Your task to perform on an android device: uninstall "Flipkart Online Shopping App" Image 0: 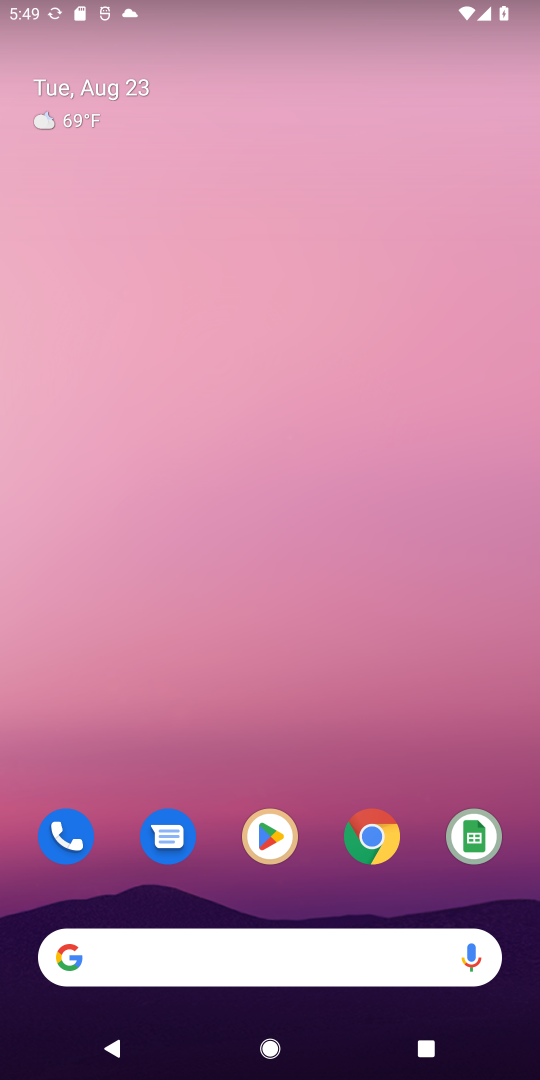
Step 0: click (269, 832)
Your task to perform on an android device: uninstall "Flipkart Online Shopping App" Image 1: 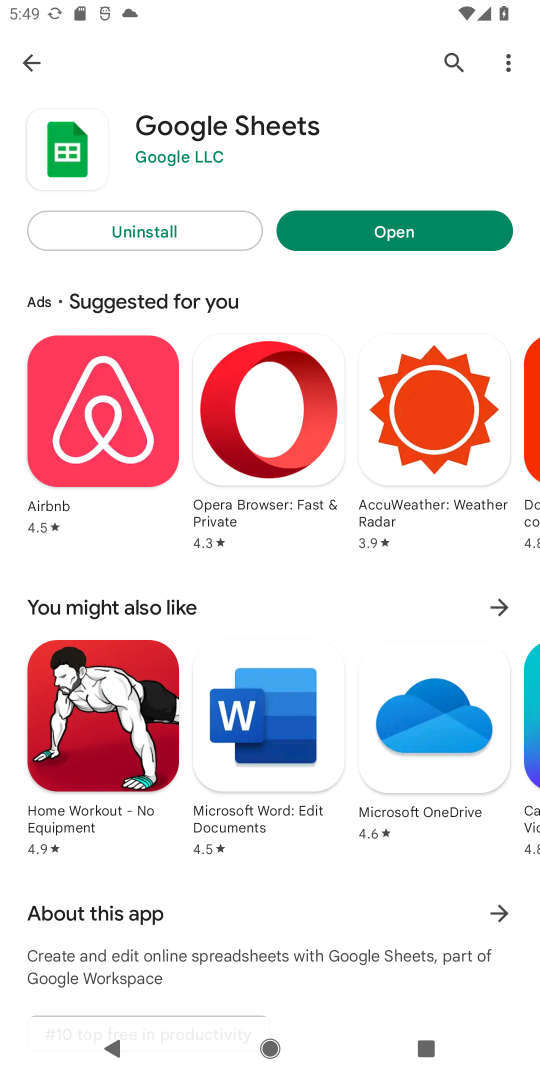
Step 1: click (454, 60)
Your task to perform on an android device: uninstall "Flipkart Online Shopping App" Image 2: 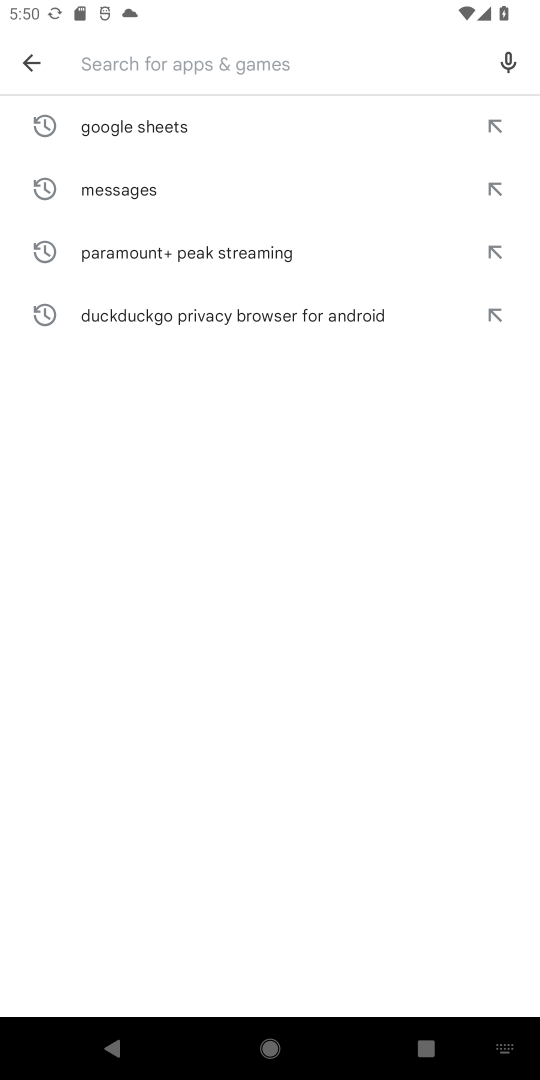
Step 2: type "Flipkart Online Shopping App"
Your task to perform on an android device: uninstall "Flipkart Online Shopping App" Image 3: 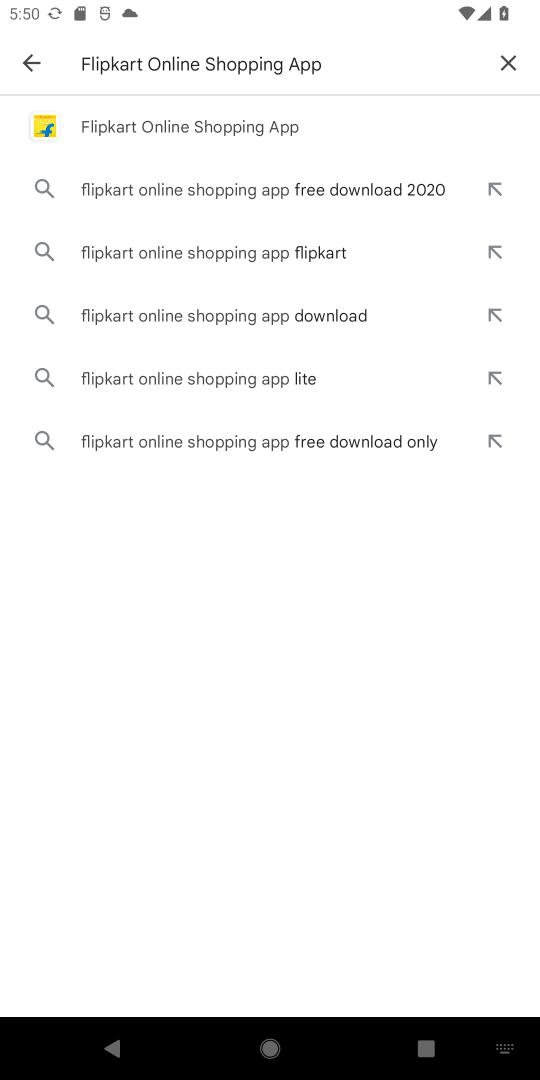
Step 3: click (118, 127)
Your task to perform on an android device: uninstall "Flipkart Online Shopping App" Image 4: 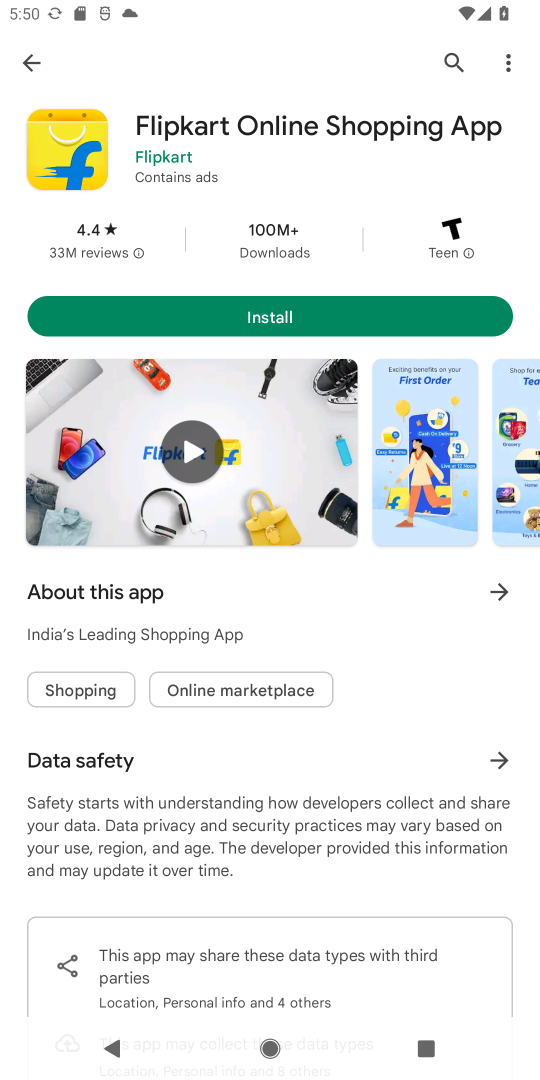
Step 4: click (263, 312)
Your task to perform on an android device: uninstall "Flipkart Online Shopping App" Image 5: 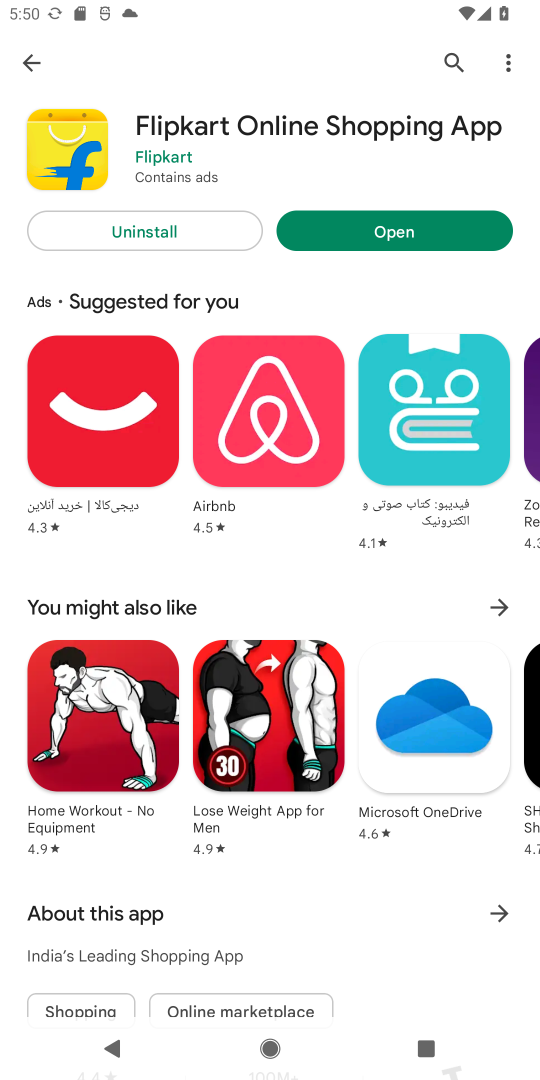
Step 5: click (125, 235)
Your task to perform on an android device: uninstall "Flipkart Online Shopping App" Image 6: 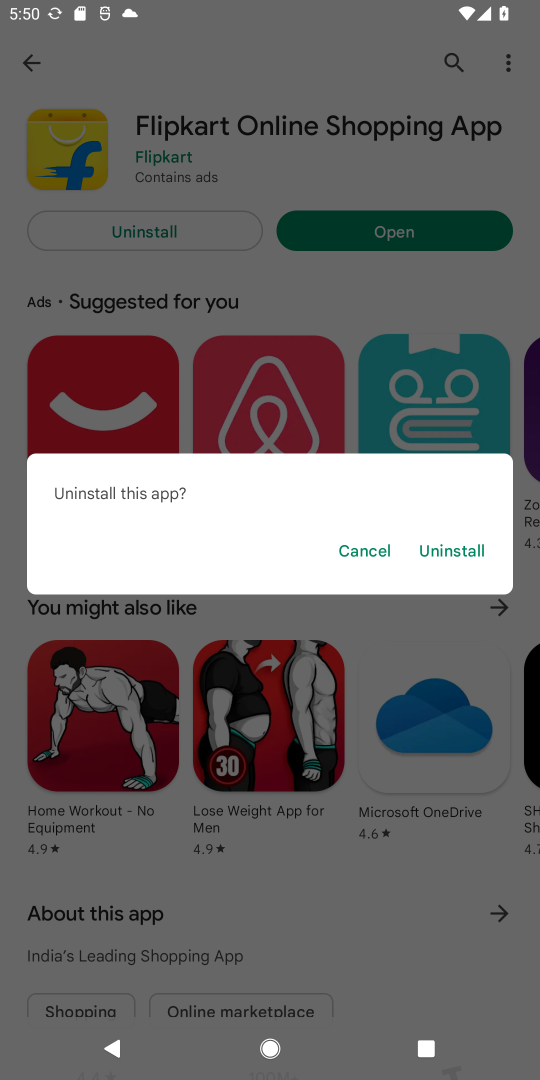
Step 6: click (450, 544)
Your task to perform on an android device: uninstall "Flipkart Online Shopping App" Image 7: 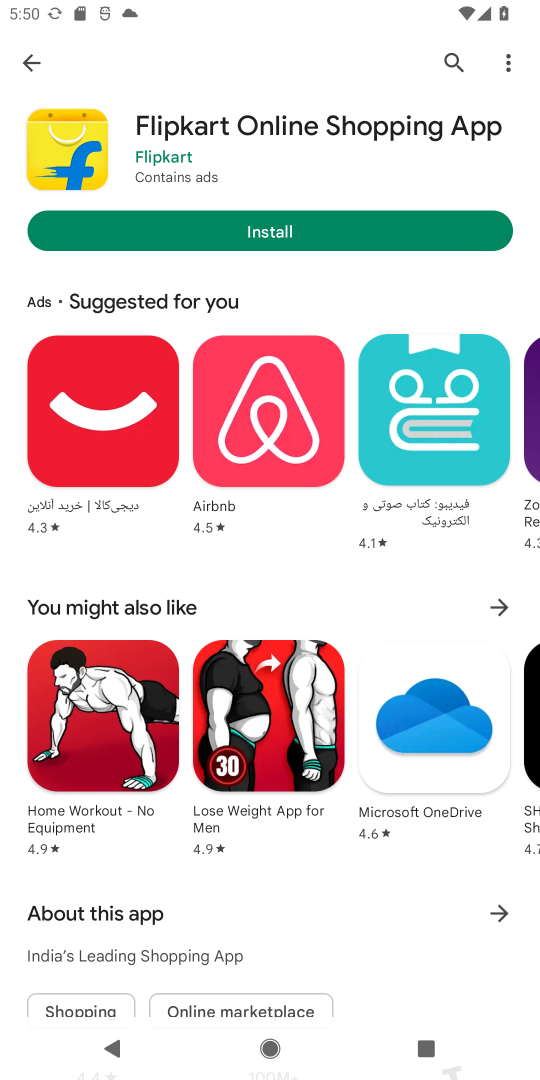
Step 7: task complete